Your task to perform on an android device: Clear all items from cart on bestbuy. Image 0: 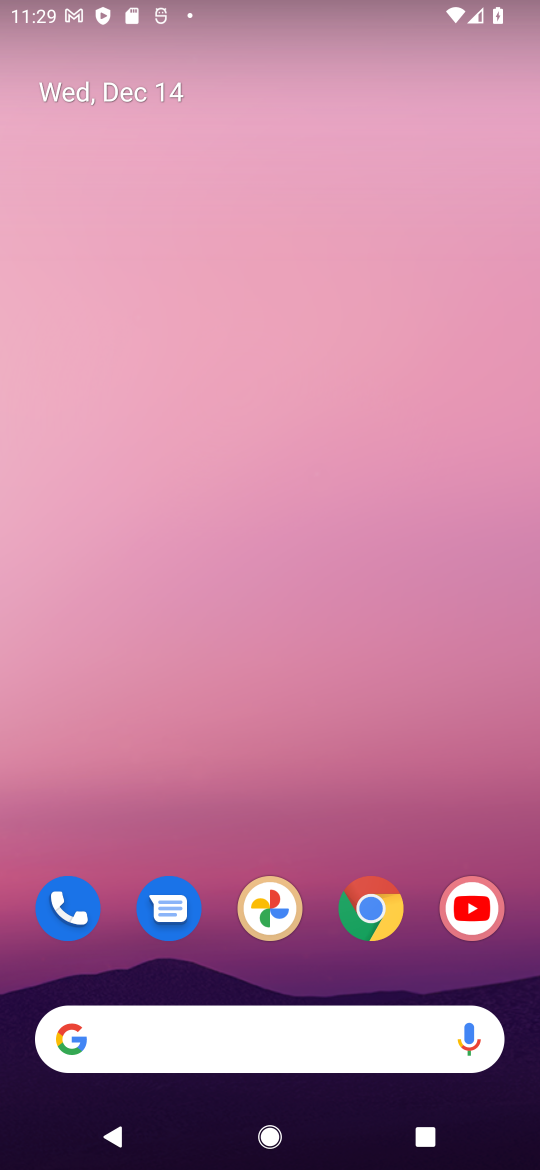
Step 0: click (374, 918)
Your task to perform on an android device: Clear all items from cart on bestbuy. Image 1: 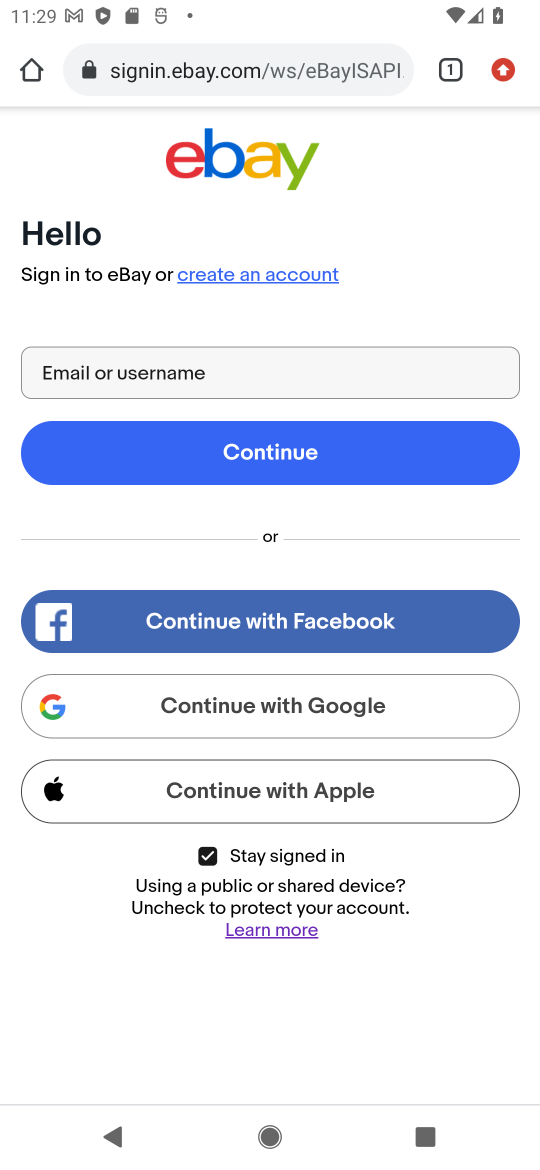
Step 1: click (207, 79)
Your task to perform on an android device: Clear all items from cart on bestbuy. Image 2: 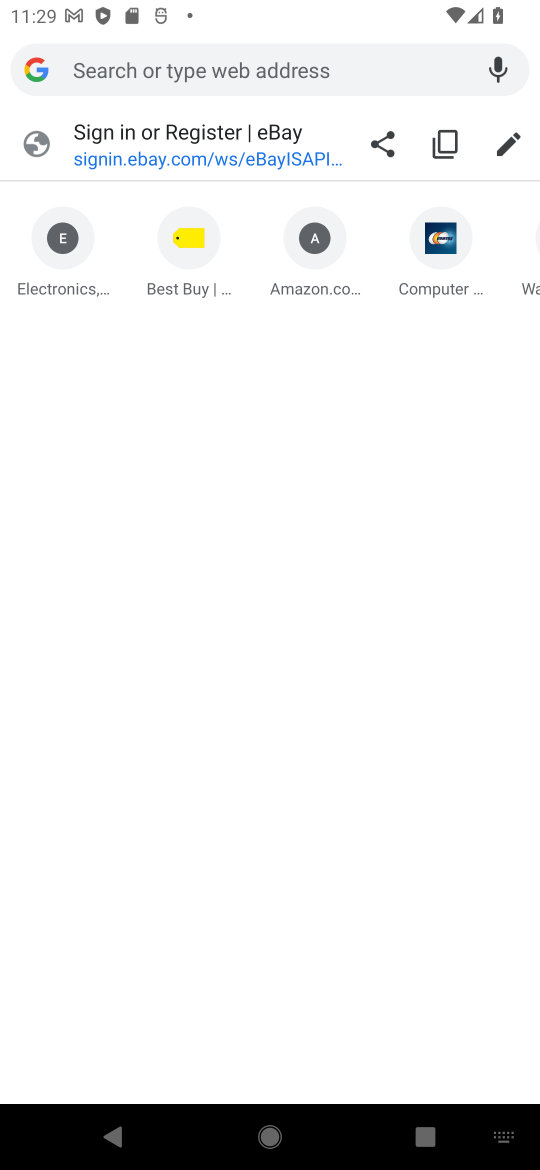
Step 2: click (169, 276)
Your task to perform on an android device: Clear all items from cart on bestbuy. Image 3: 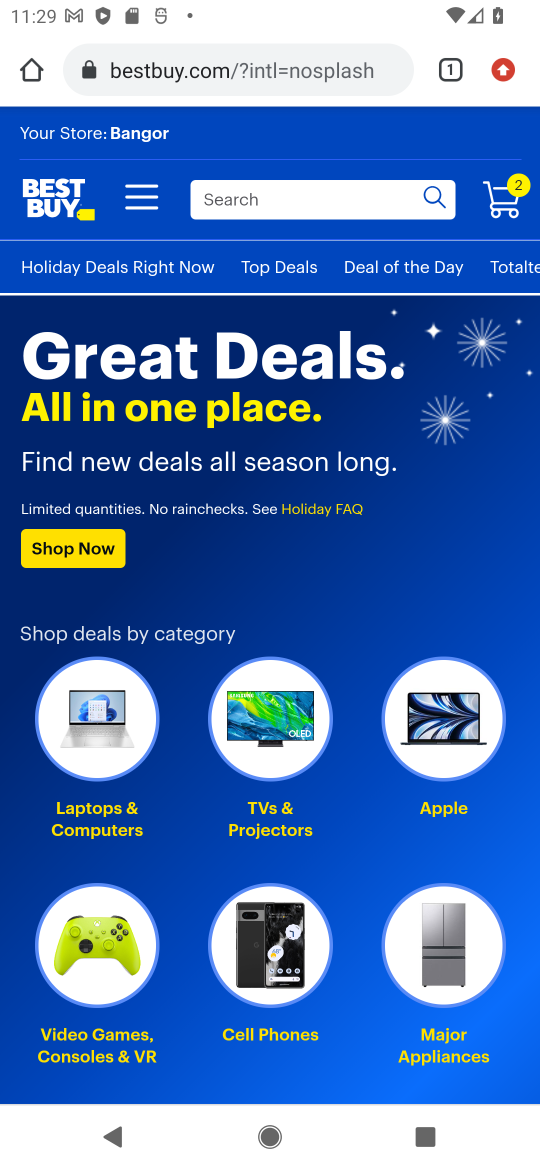
Step 3: click (505, 212)
Your task to perform on an android device: Clear all items from cart on bestbuy. Image 4: 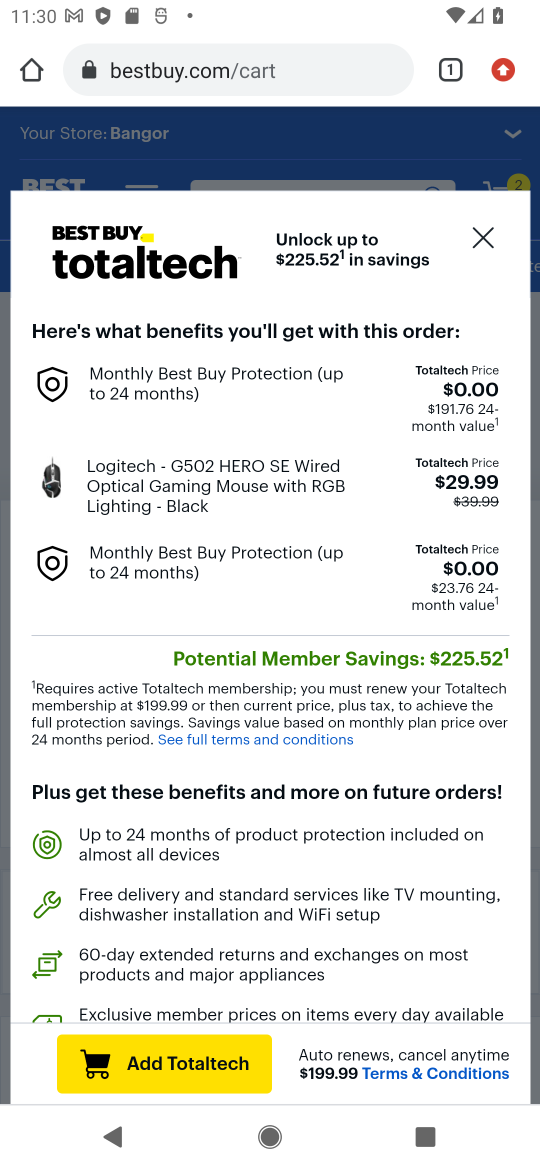
Step 4: click (478, 240)
Your task to perform on an android device: Clear all items from cart on bestbuy. Image 5: 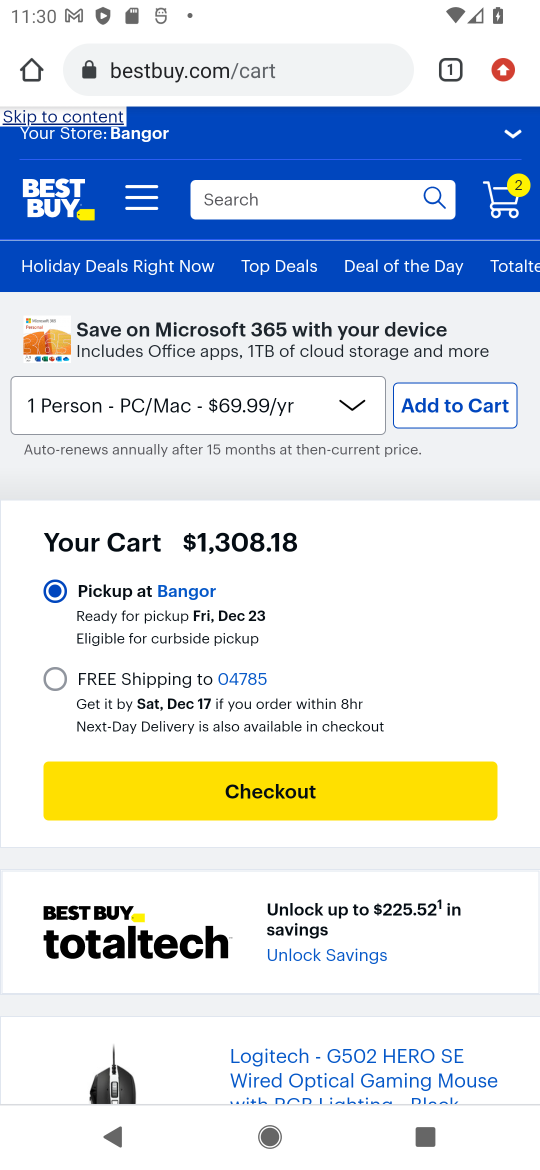
Step 5: drag from (253, 529) to (245, 204)
Your task to perform on an android device: Clear all items from cart on bestbuy. Image 6: 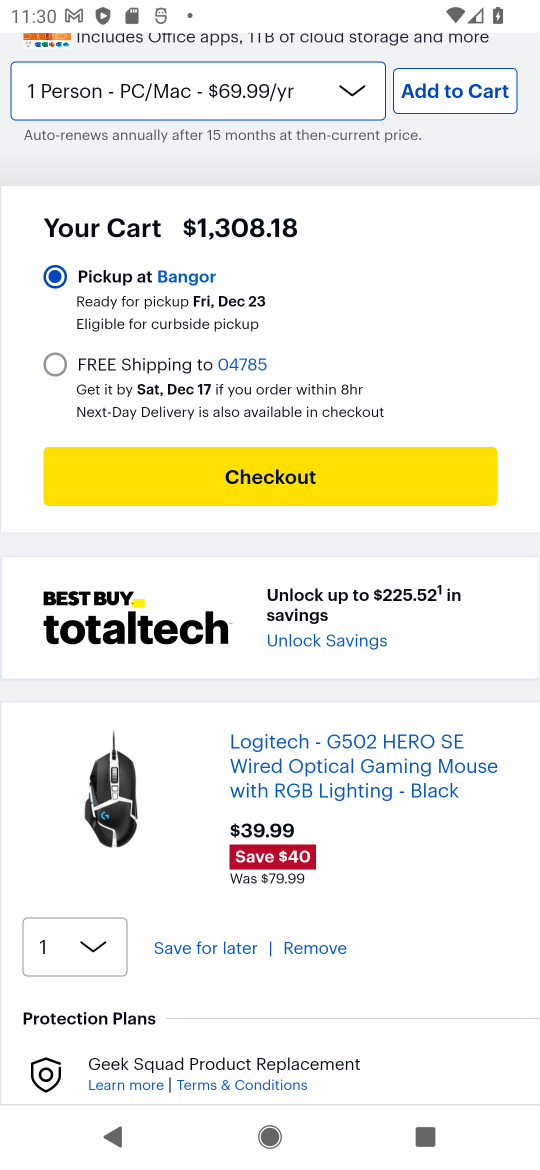
Step 6: click (318, 943)
Your task to perform on an android device: Clear all items from cart on bestbuy. Image 7: 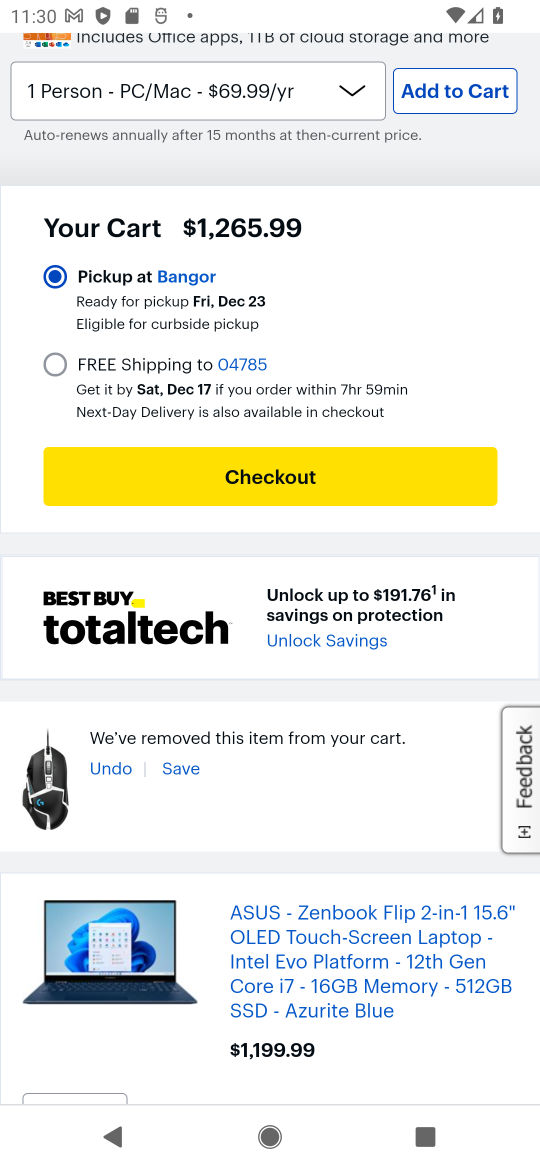
Step 7: drag from (318, 932) to (304, 561)
Your task to perform on an android device: Clear all items from cart on bestbuy. Image 8: 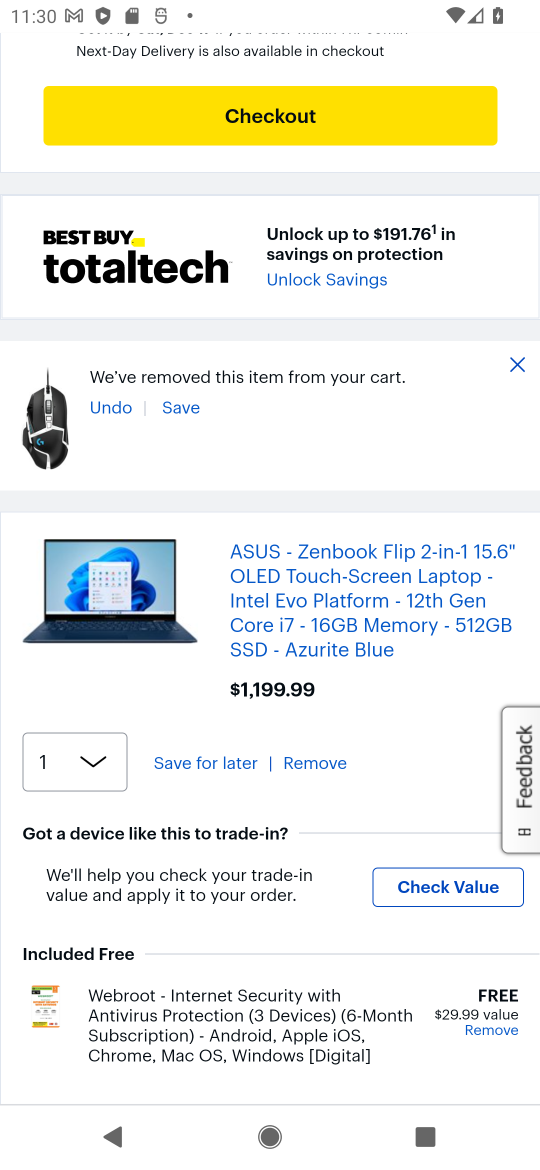
Step 8: click (330, 770)
Your task to perform on an android device: Clear all items from cart on bestbuy. Image 9: 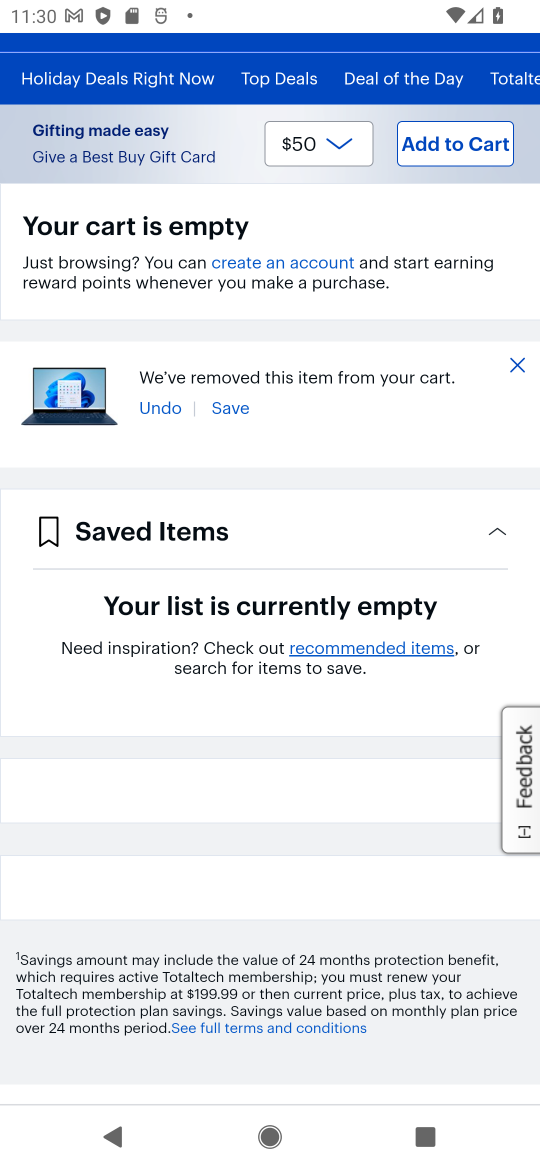
Step 9: task complete